Your task to perform on an android device: open app "DoorDash - Dasher" (install if not already installed) and enter user name: "resistor@inbox.com" and password: "cholera" Image 0: 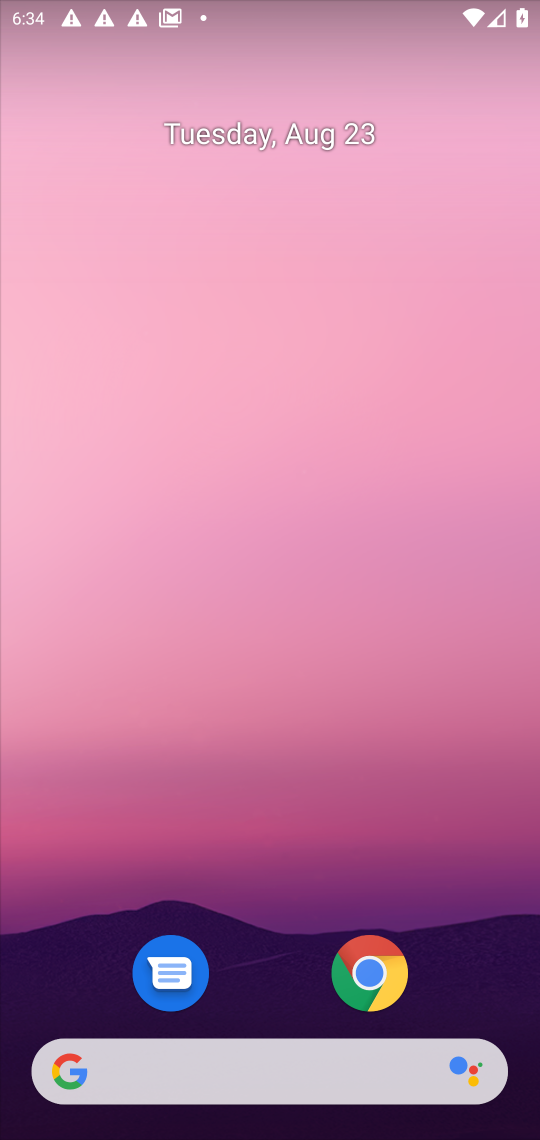
Step 0: drag from (218, 735) to (333, 26)
Your task to perform on an android device: open app "DoorDash - Dasher" (install if not already installed) and enter user name: "resistor@inbox.com" and password: "cholera" Image 1: 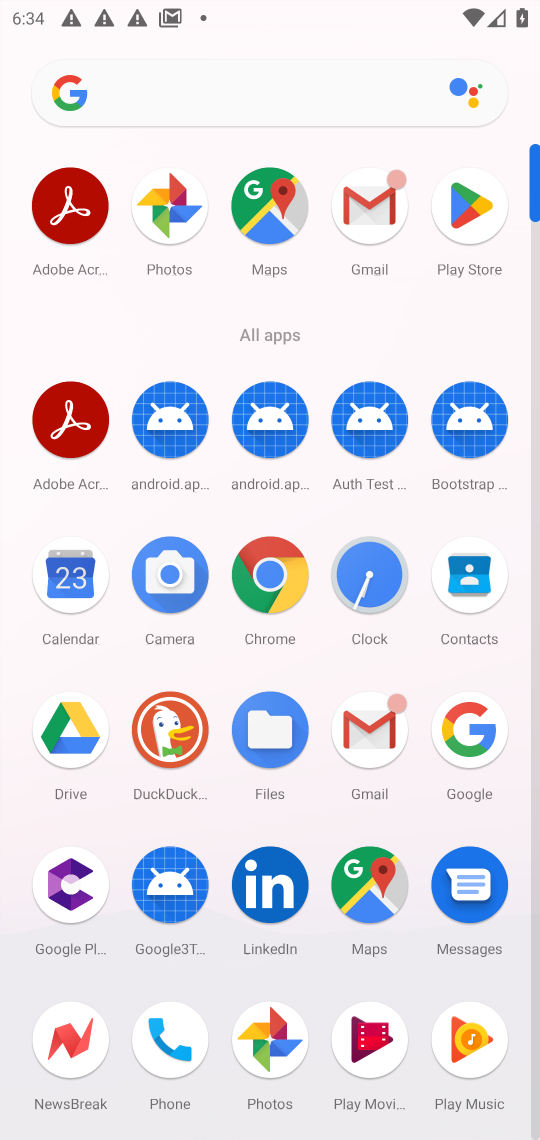
Step 1: click (470, 232)
Your task to perform on an android device: open app "DoorDash - Dasher" (install if not already installed) and enter user name: "resistor@inbox.com" and password: "cholera" Image 2: 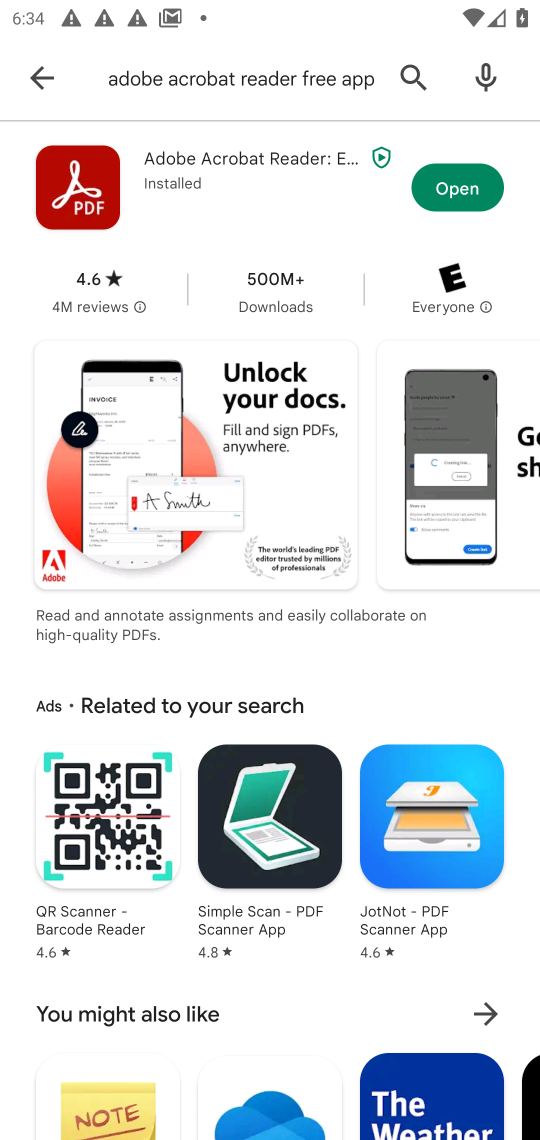
Step 2: click (416, 70)
Your task to perform on an android device: open app "DoorDash - Dasher" (install if not already installed) and enter user name: "resistor@inbox.com" and password: "cholera" Image 3: 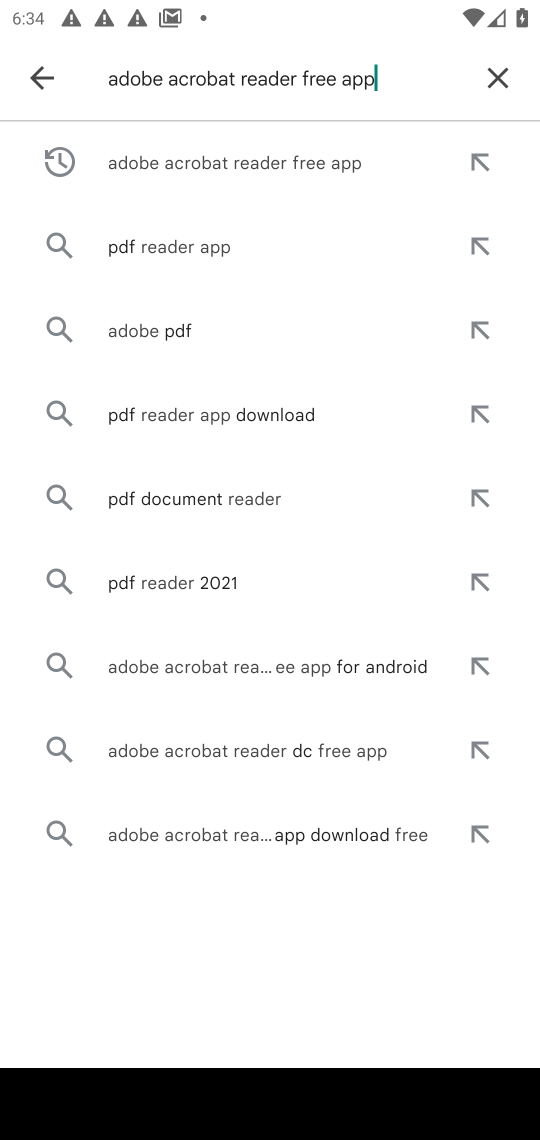
Step 3: click (491, 73)
Your task to perform on an android device: open app "DoorDash - Dasher" (install if not already installed) and enter user name: "resistor@inbox.com" and password: "cholera" Image 4: 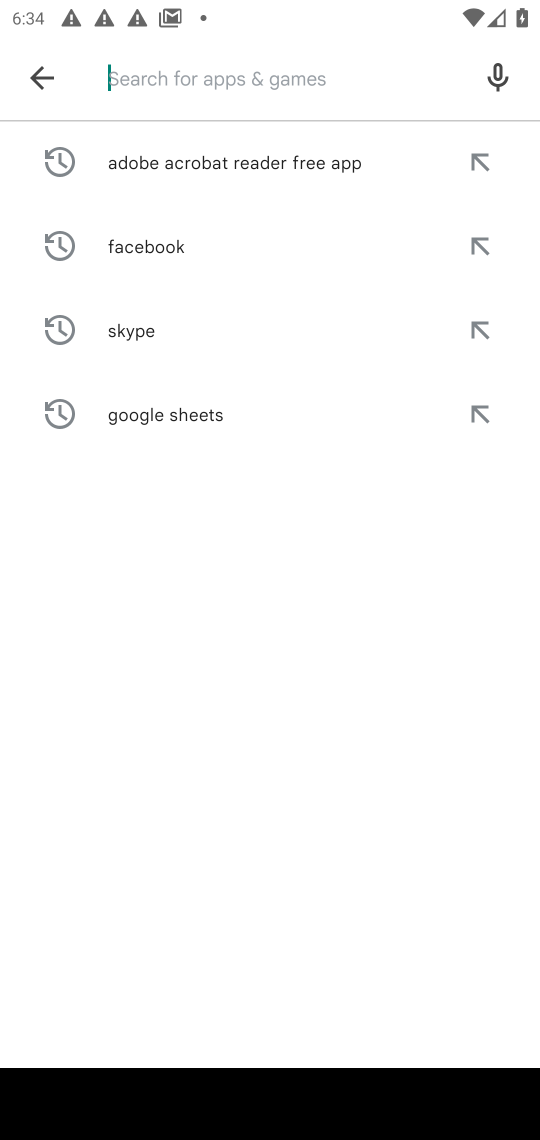
Step 4: click (205, 76)
Your task to perform on an android device: open app "DoorDash - Dasher" (install if not already installed) and enter user name: "resistor@inbox.com" and password: "cholera" Image 5: 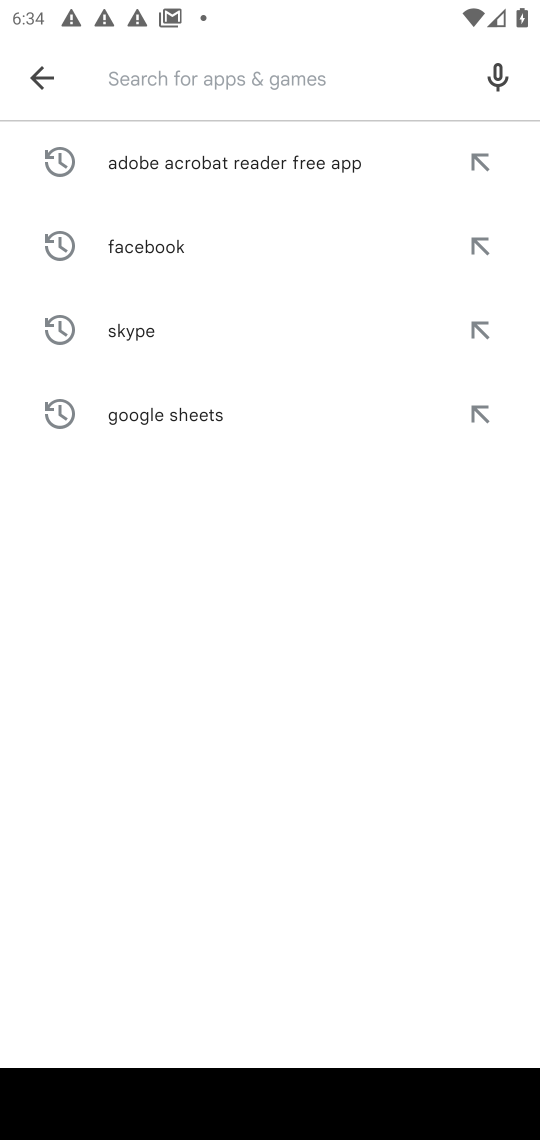
Step 5: type "DoorDash - Dasher"
Your task to perform on an android device: open app "DoorDash - Dasher" (install if not already installed) and enter user name: "resistor@inbox.com" and password: "cholera" Image 6: 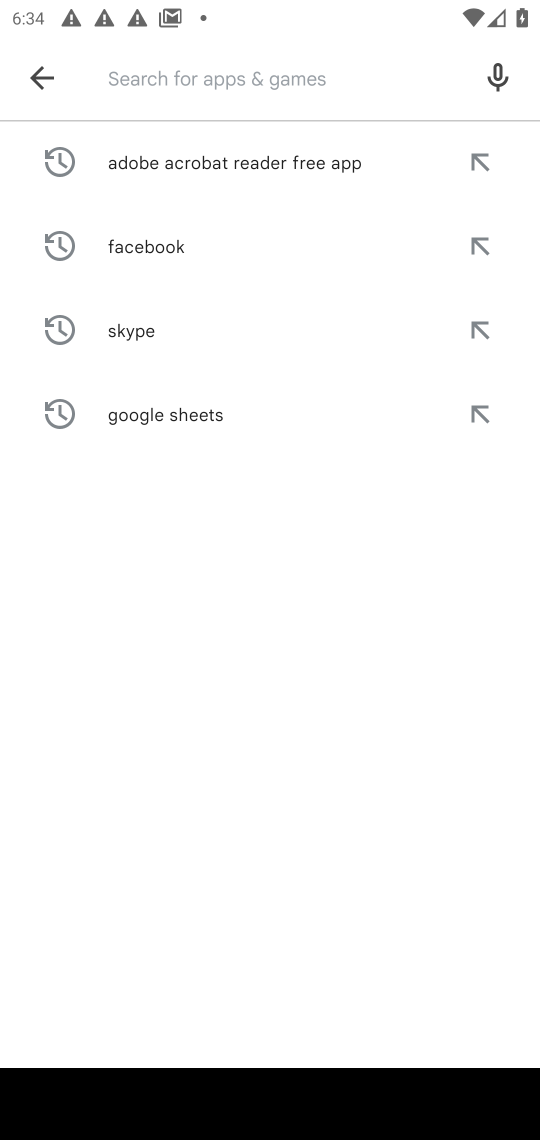
Step 6: click (251, 675)
Your task to perform on an android device: open app "DoorDash - Dasher" (install if not already installed) and enter user name: "resistor@inbox.com" and password: "cholera" Image 7: 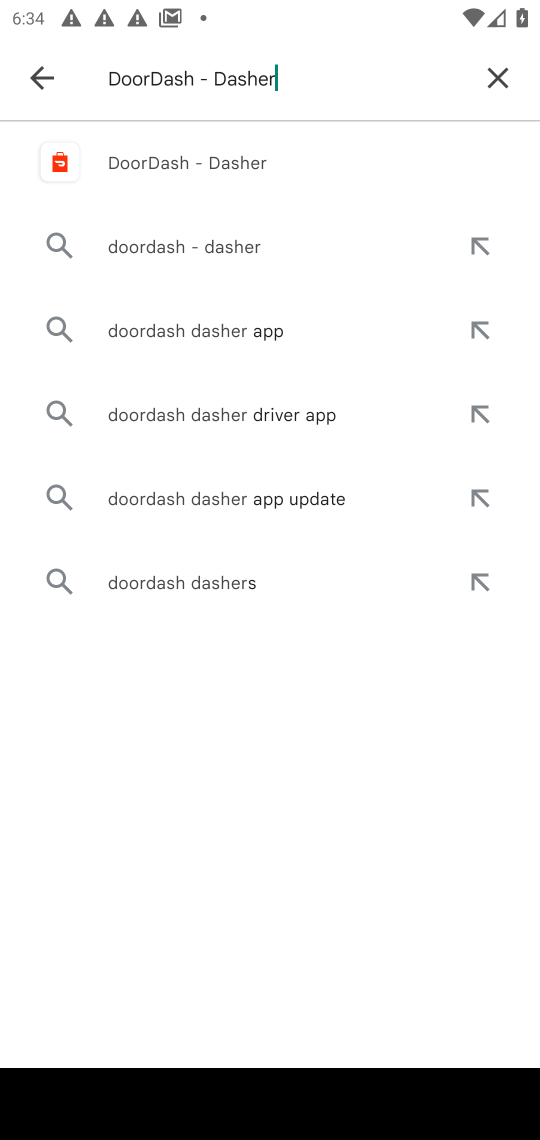
Step 7: click (128, 163)
Your task to perform on an android device: open app "DoorDash - Dasher" (install if not already installed) and enter user name: "resistor@inbox.com" and password: "cholera" Image 8: 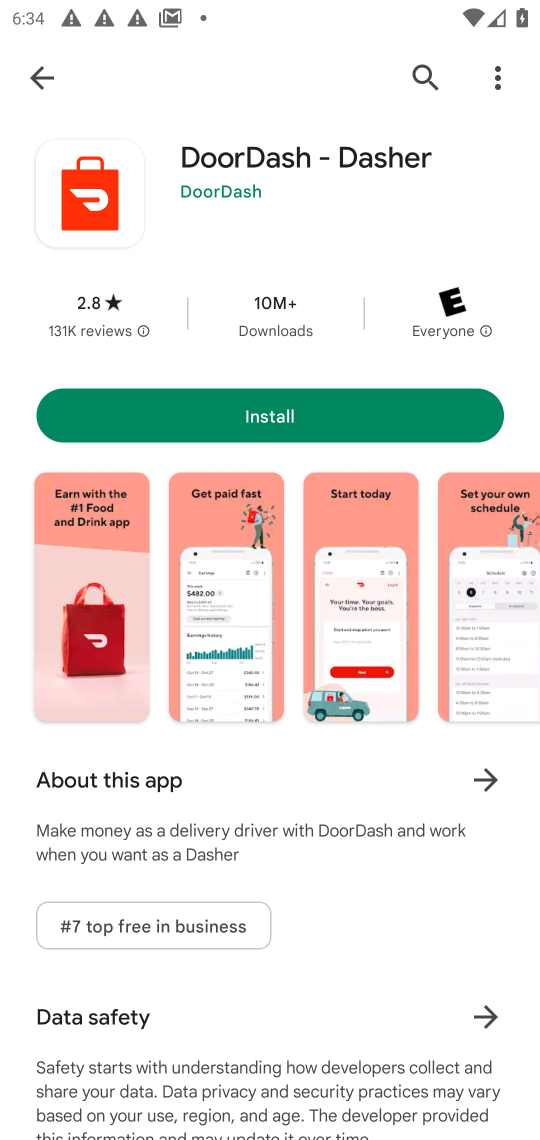
Step 8: click (327, 421)
Your task to perform on an android device: open app "DoorDash - Dasher" (install if not already installed) and enter user name: "resistor@inbox.com" and password: "cholera" Image 9: 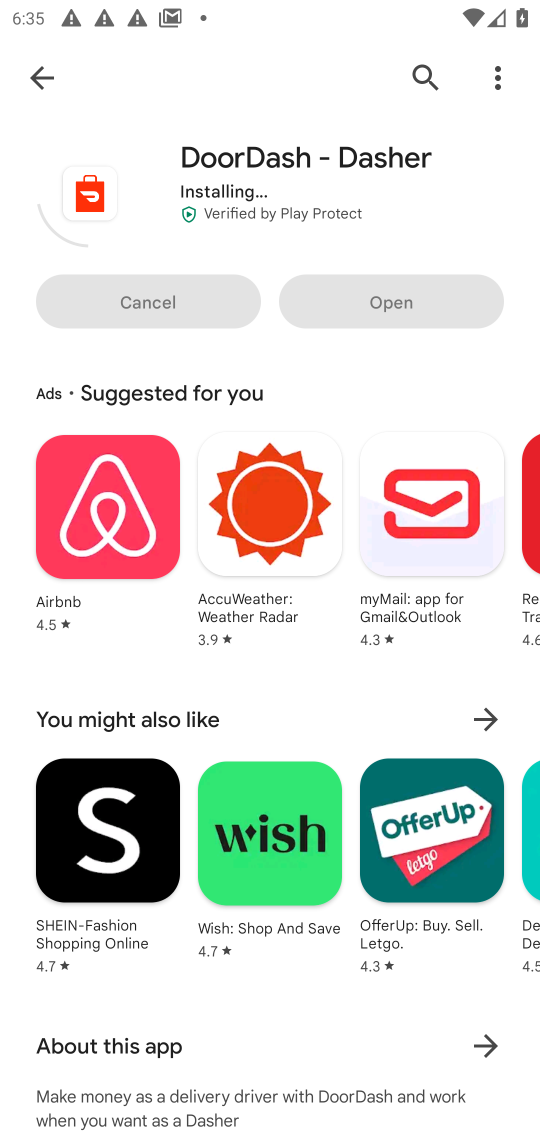
Step 9: press back button
Your task to perform on an android device: open app "DoorDash - Dasher" (install if not already installed) and enter user name: "resistor@inbox.com" and password: "cholera" Image 10: 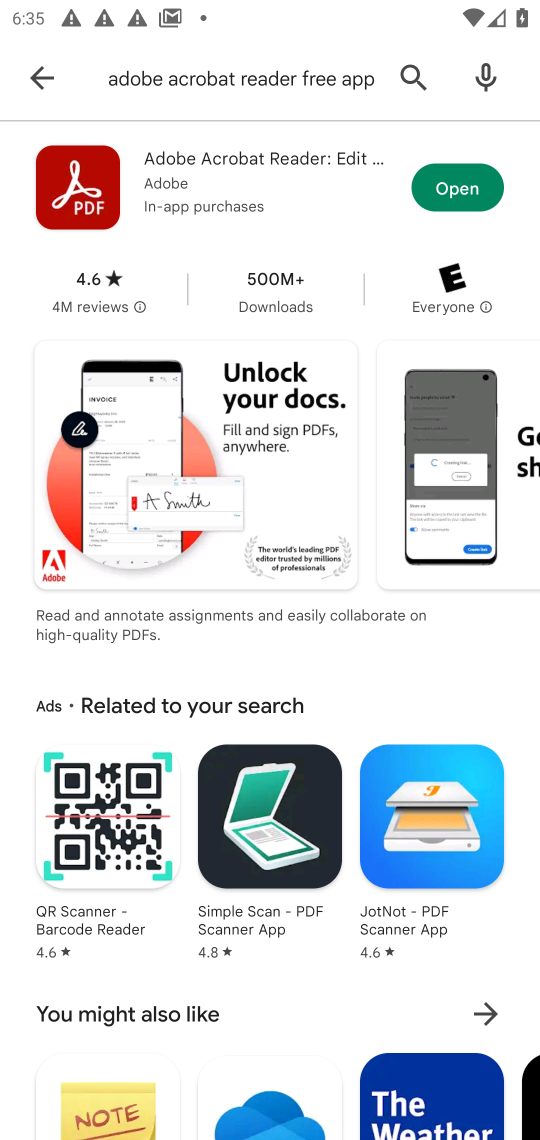
Step 10: click (397, 91)
Your task to perform on an android device: open app "DoorDash - Dasher" (install if not already installed) and enter user name: "resistor@inbox.com" and password: "cholera" Image 11: 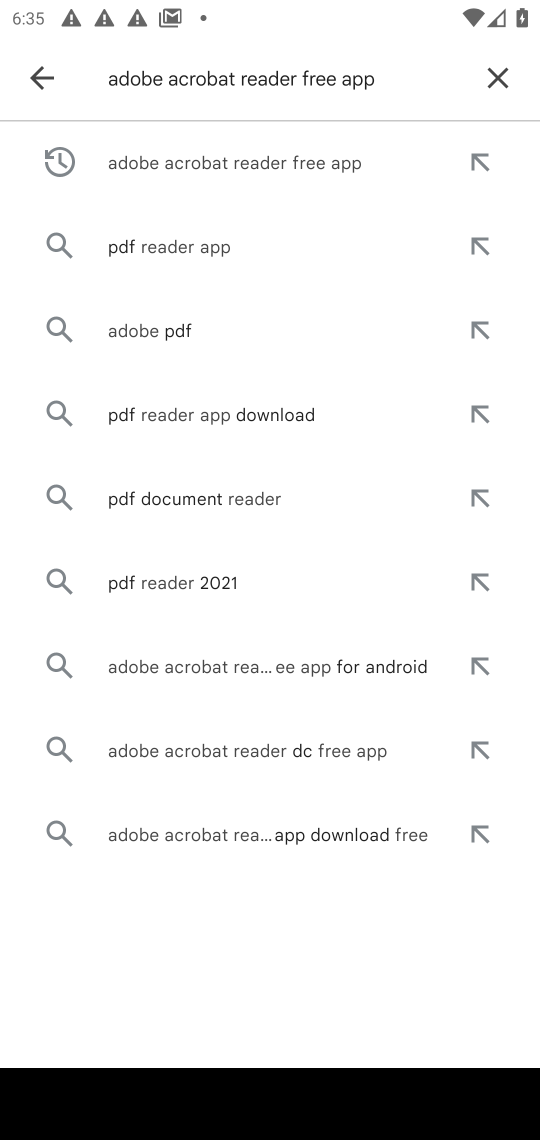
Step 11: click (502, 97)
Your task to perform on an android device: open app "DoorDash - Dasher" (install if not already installed) and enter user name: "resistor@inbox.com" and password: "cholera" Image 12: 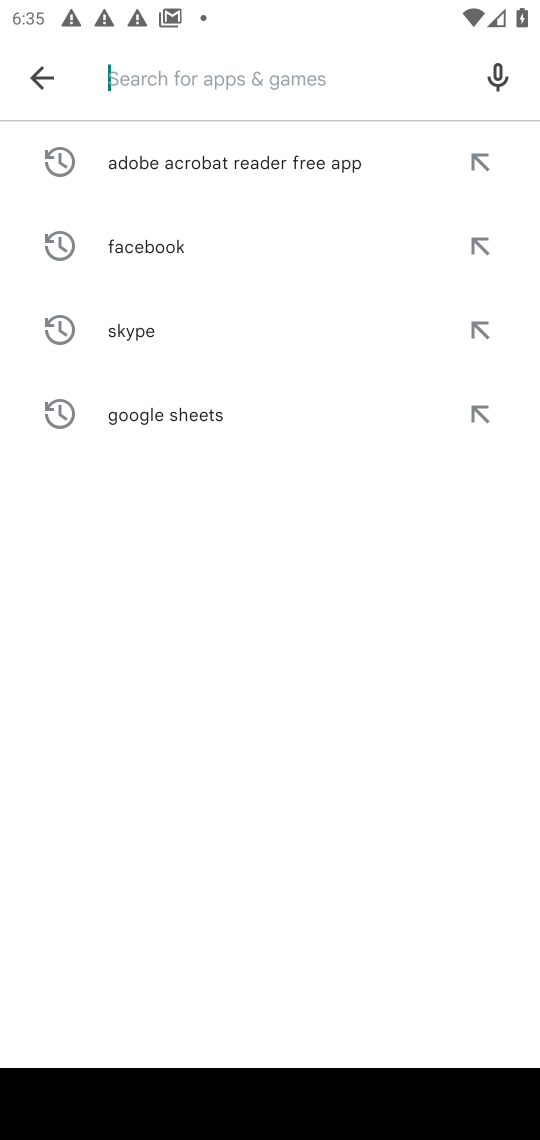
Step 12: type "DoorDash - Dasher"
Your task to perform on an android device: open app "DoorDash - Dasher" (install if not already installed) and enter user name: "resistor@inbox.com" and password: "cholera" Image 13: 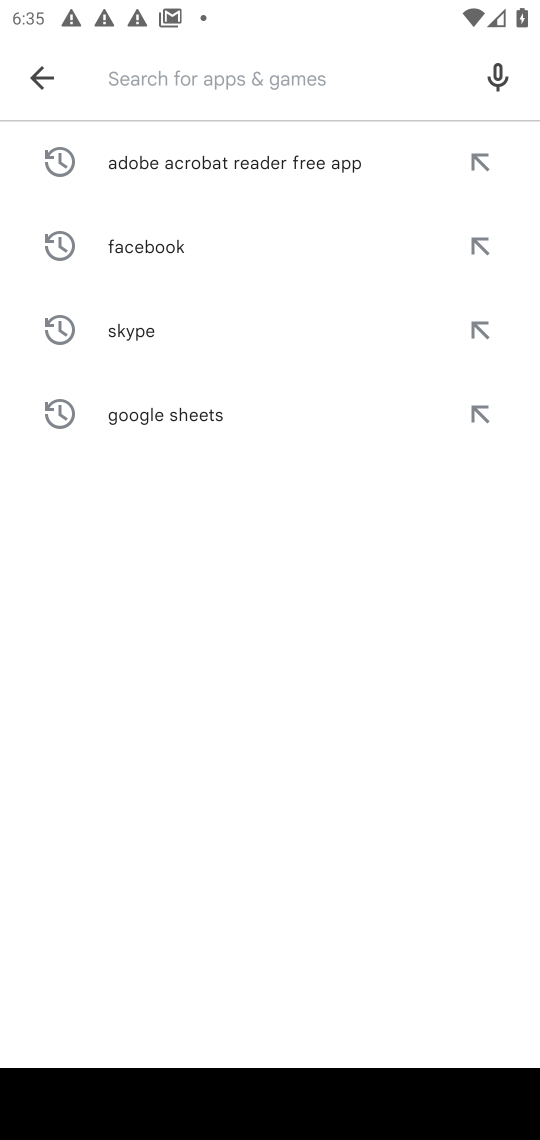
Step 13: click (342, 779)
Your task to perform on an android device: open app "DoorDash - Dasher" (install if not already installed) and enter user name: "resistor@inbox.com" and password: "cholera" Image 14: 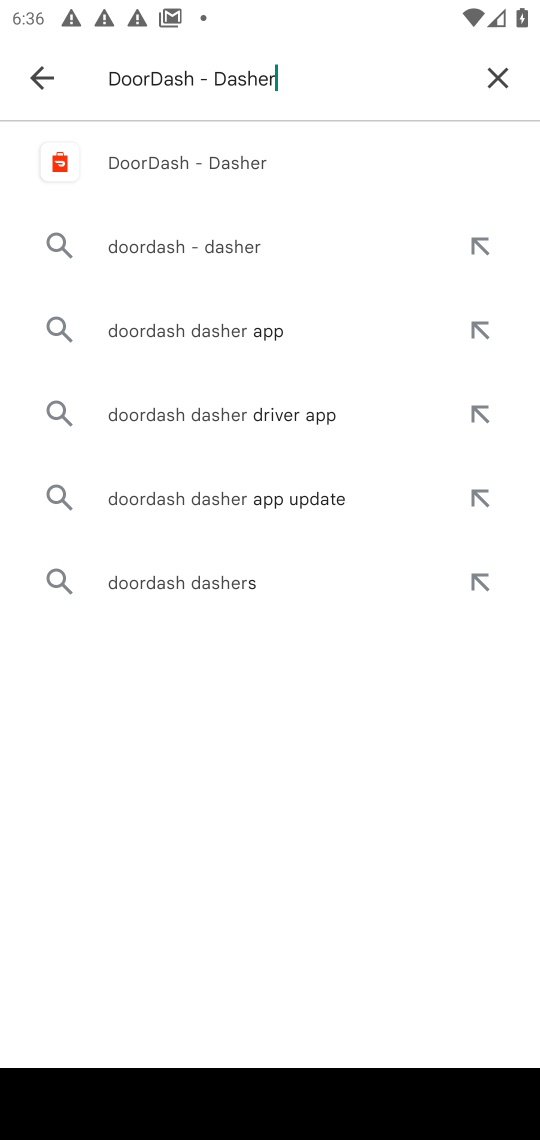
Step 14: click (173, 157)
Your task to perform on an android device: open app "DoorDash - Dasher" (install if not already installed) and enter user name: "resistor@inbox.com" and password: "cholera" Image 15: 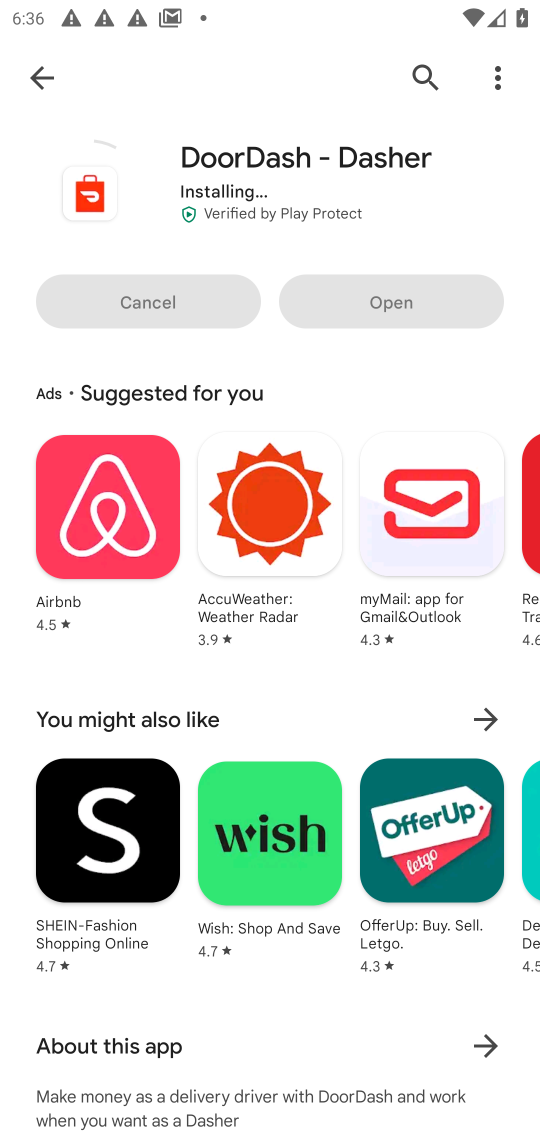
Step 15: click (148, 289)
Your task to perform on an android device: open app "DoorDash - Dasher" (install if not already installed) and enter user name: "resistor@inbox.com" and password: "cholera" Image 16: 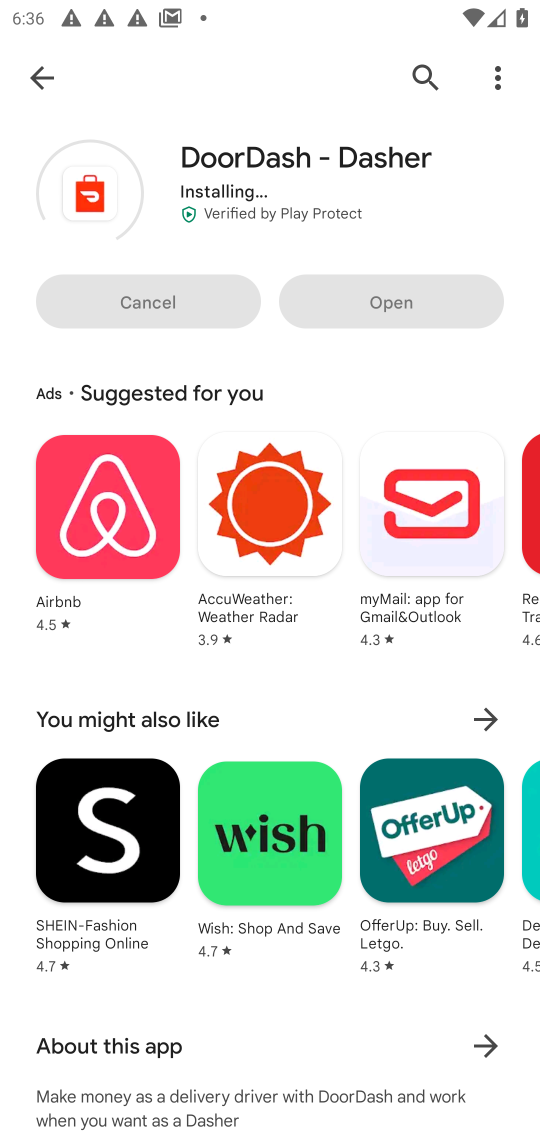
Step 16: task complete